Your task to perform on an android device: turn off data saver in the chrome app Image 0: 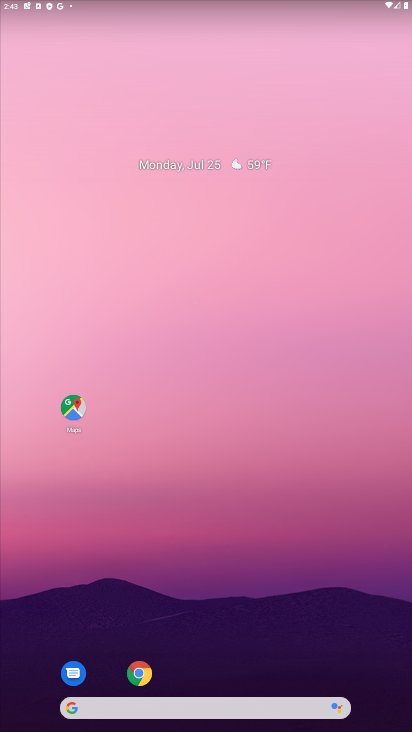
Step 0: click (140, 672)
Your task to perform on an android device: turn off data saver in the chrome app Image 1: 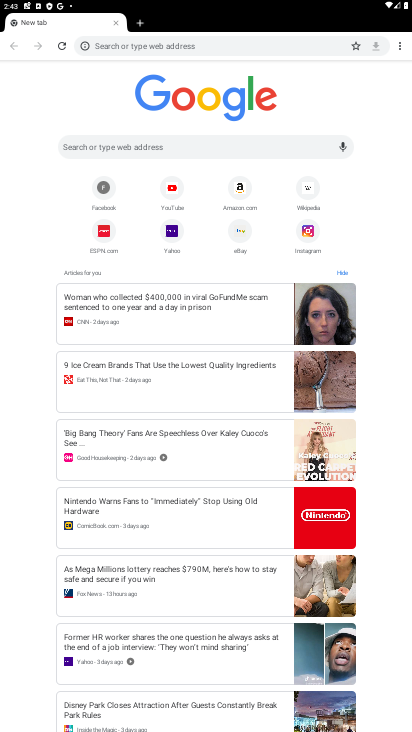
Step 1: click (406, 42)
Your task to perform on an android device: turn off data saver in the chrome app Image 2: 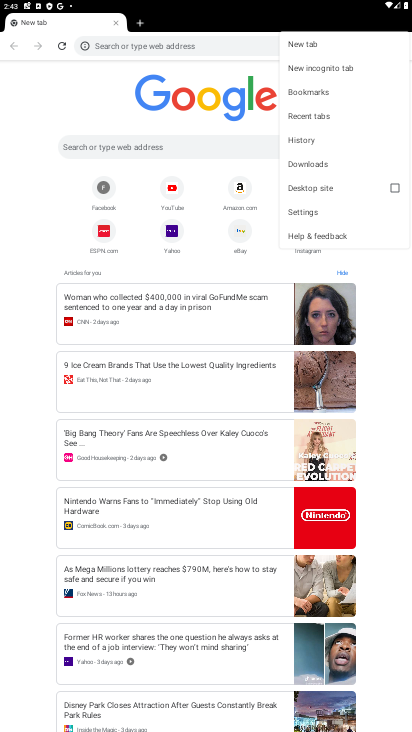
Step 2: click (307, 211)
Your task to perform on an android device: turn off data saver in the chrome app Image 3: 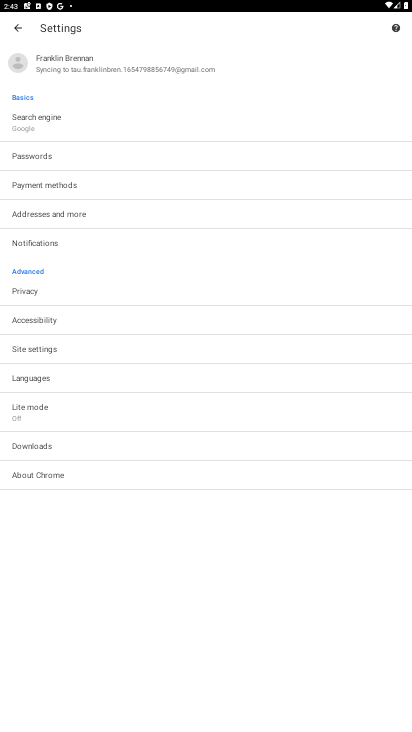
Step 3: click (78, 417)
Your task to perform on an android device: turn off data saver in the chrome app Image 4: 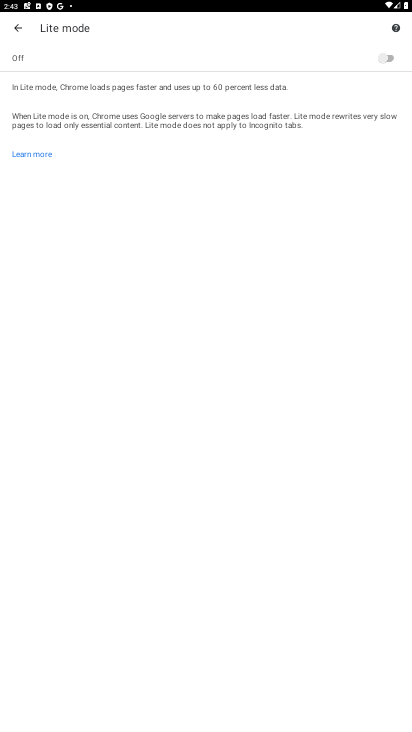
Step 4: task complete